Your task to perform on an android device: Open settings Image 0: 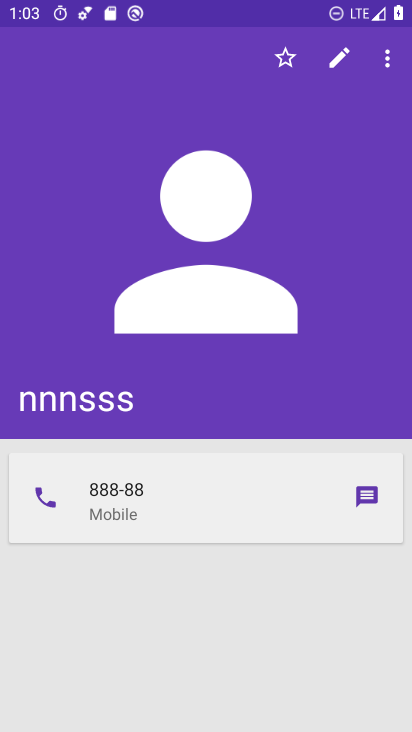
Step 0: press home button
Your task to perform on an android device: Open settings Image 1: 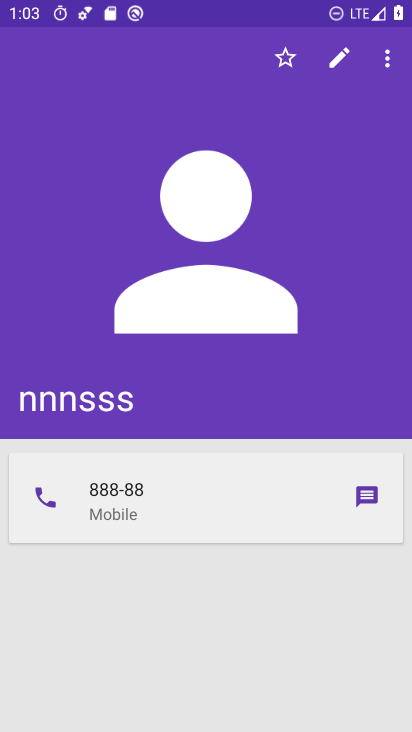
Step 1: press home button
Your task to perform on an android device: Open settings Image 2: 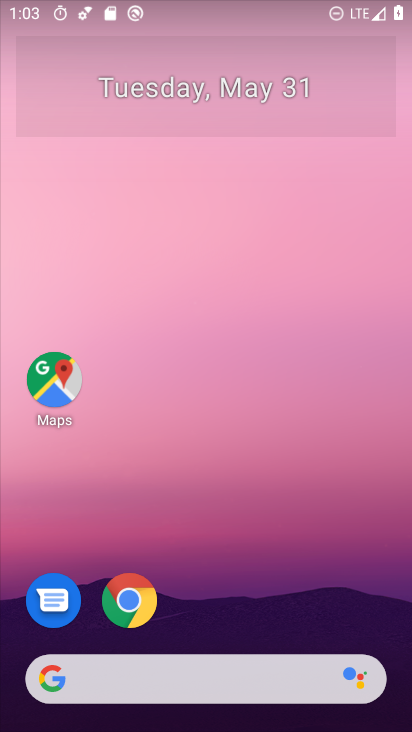
Step 2: drag from (229, 729) to (223, 40)
Your task to perform on an android device: Open settings Image 3: 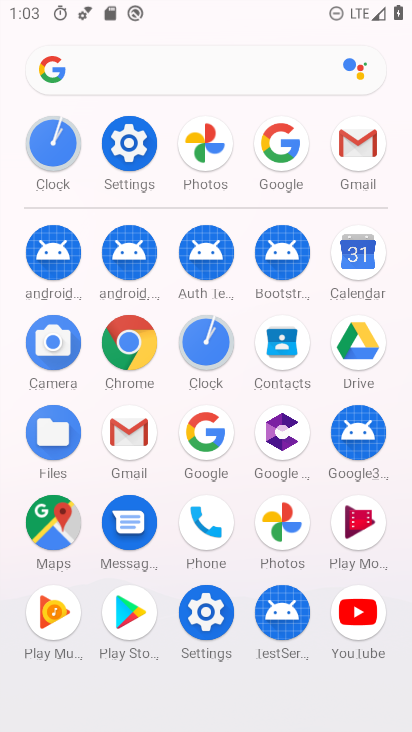
Step 3: click (131, 155)
Your task to perform on an android device: Open settings Image 4: 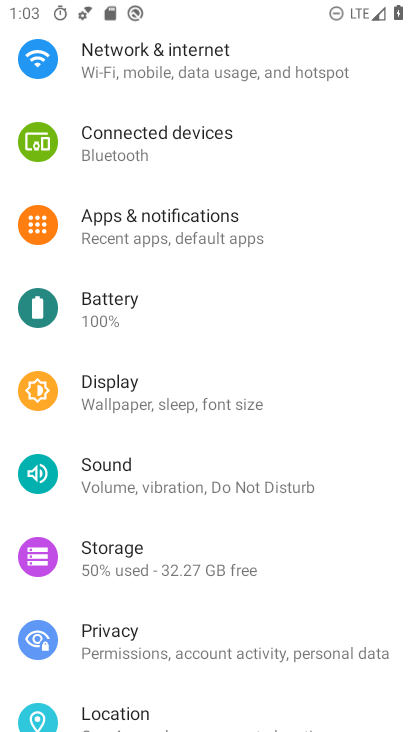
Step 4: task complete